Your task to perform on an android device: Show me the alarms in the clock app Image 0: 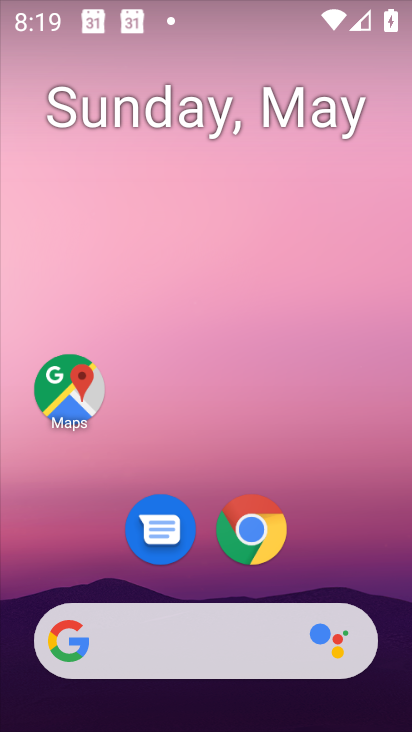
Step 0: task complete